Your task to perform on an android device: turn notification dots on Image 0: 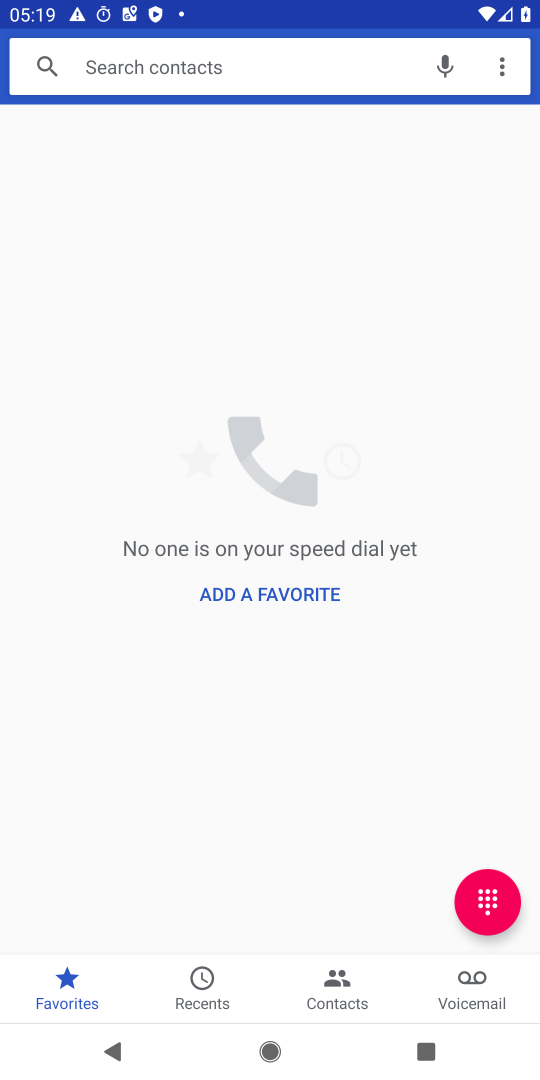
Step 0: press home button
Your task to perform on an android device: turn notification dots on Image 1: 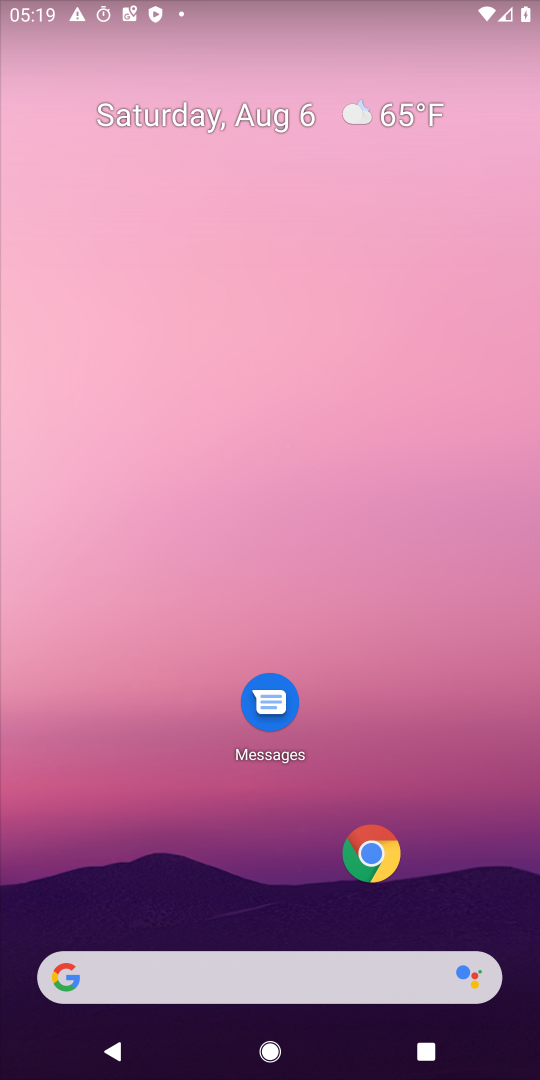
Step 1: drag from (424, 808) to (259, 98)
Your task to perform on an android device: turn notification dots on Image 2: 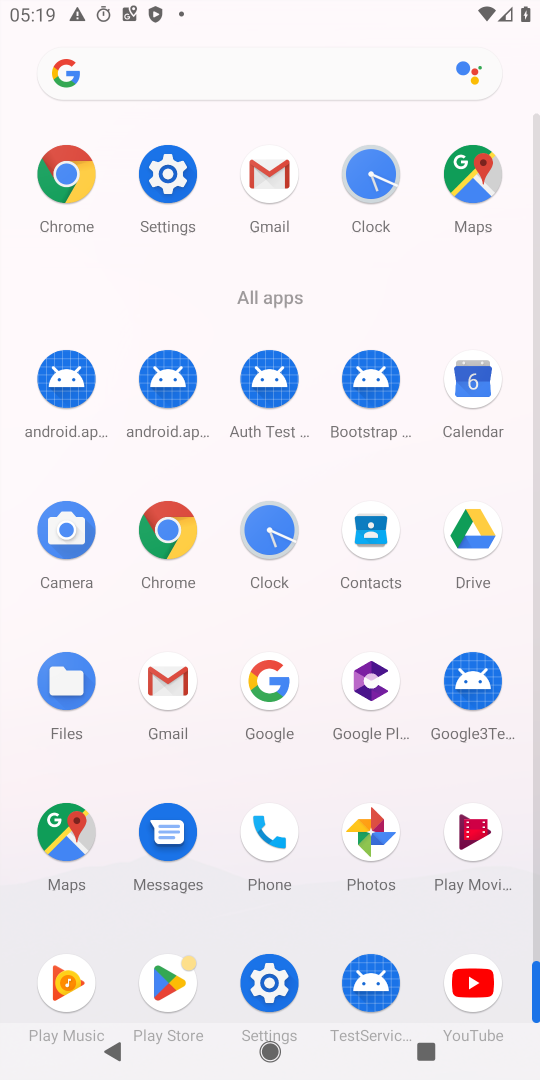
Step 2: click (273, 970)
Your task to perform on an android device: turn notification dots on Image 3: 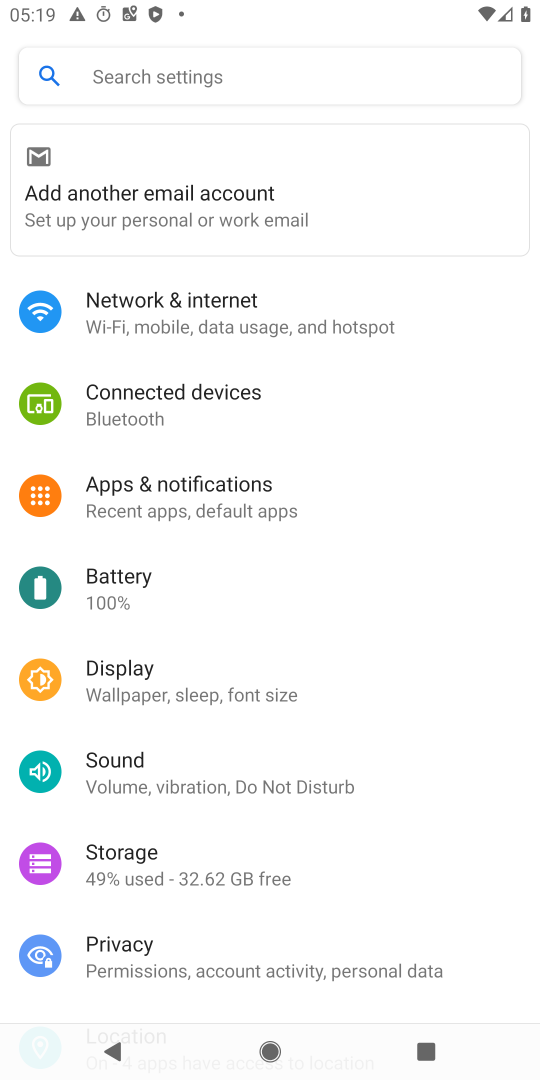
Step 3: click (244, 466)
Your task to perform on an android device: turn notification dots on Image 4: 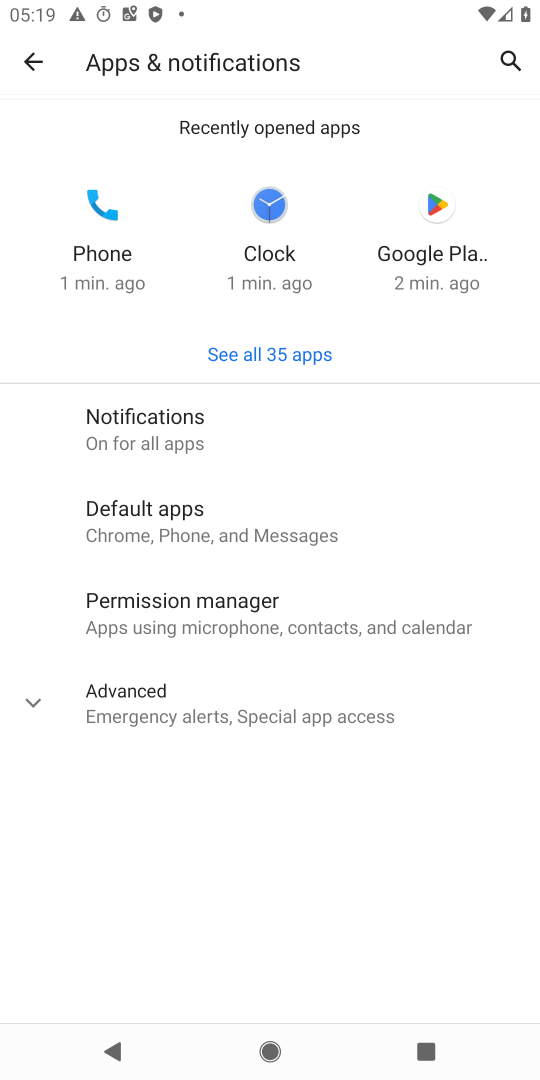
Step 4: click (163, 443)
Your task to perform on an android device: turn notification dots on Image 5: 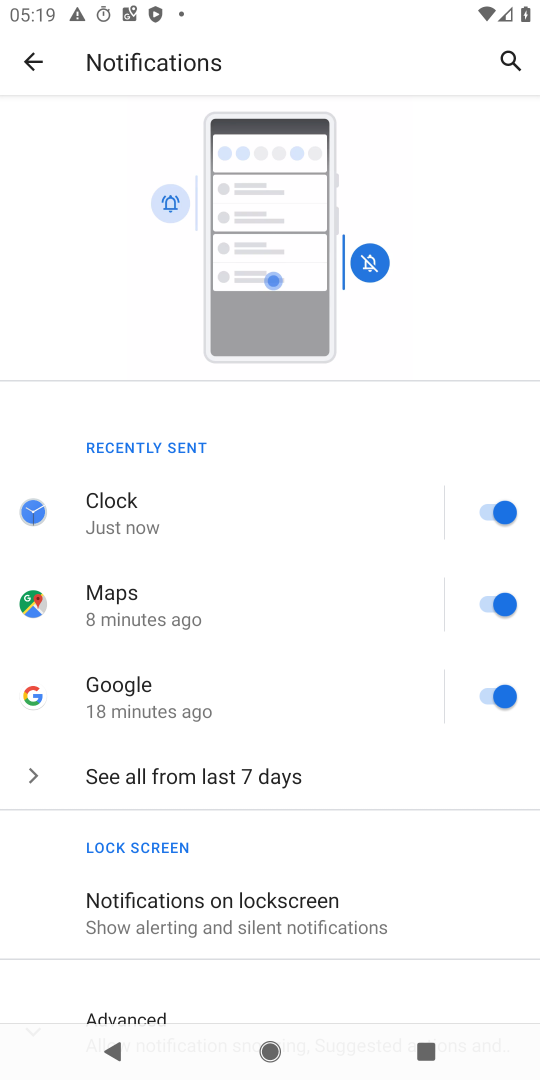
Step 5: drag from (332, 809) to (334, 196)
Your task to perform on an android device: turn notification dots on Image 6: 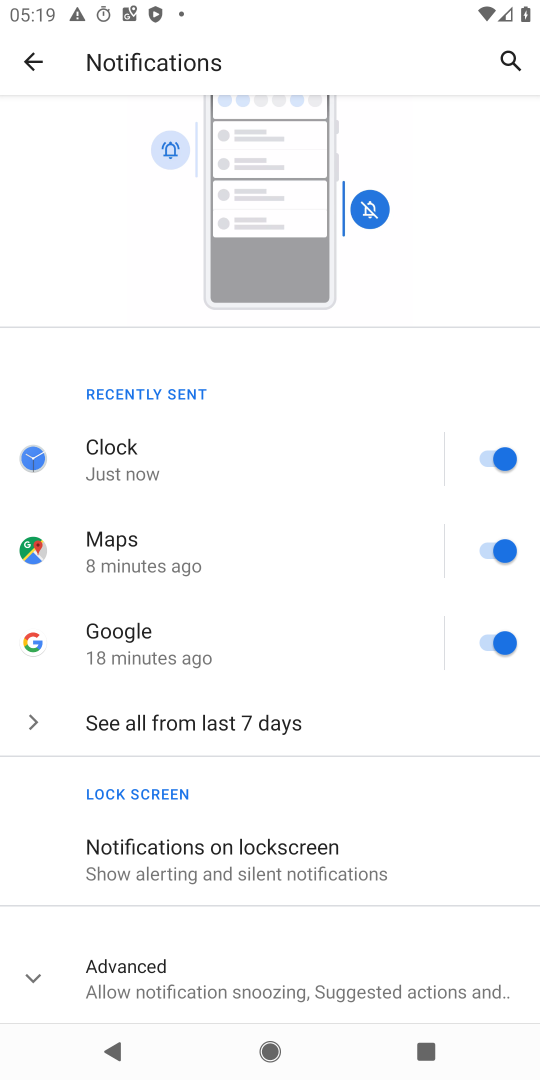
Step 6: click (213, 973)
Your task to perform on an android device: turn notification dots on Image 7: 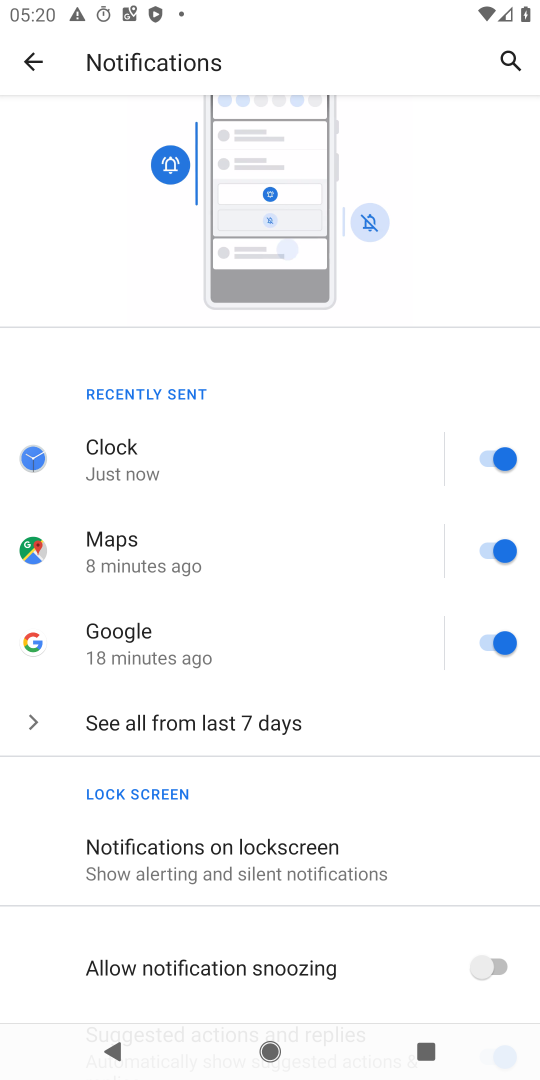
Step 7: task complete